Your task to perform on an android device: Open Amazon Image 0: 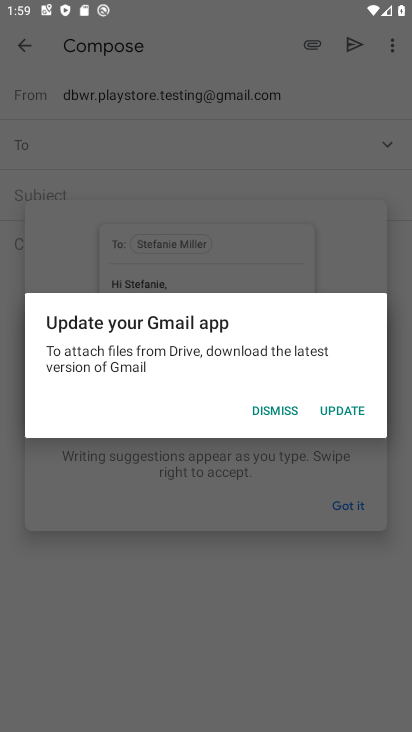
Step 0: press home button
Your task to perform on an android device: Open Amazon Image 1: 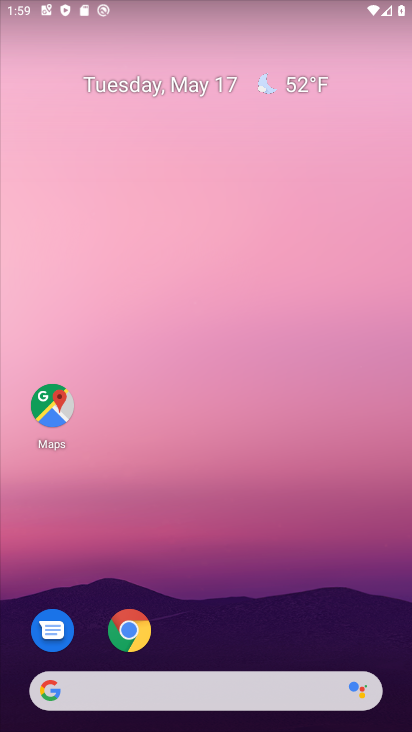
Step 1: click (108, 642)
Your task to perform on an android device: Open Amazon Image 2: 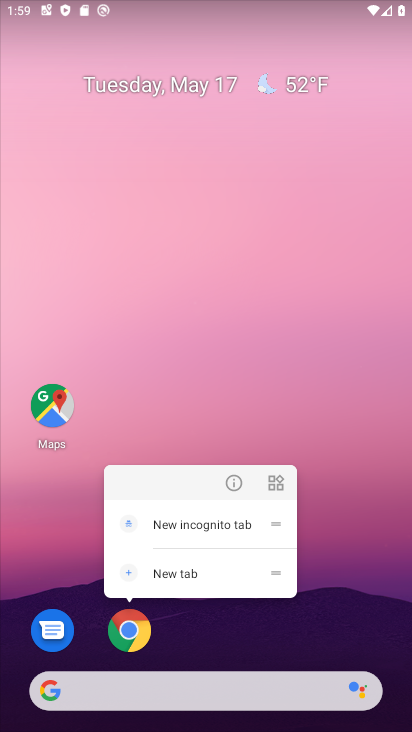
Step 2: click (130, 629)
Your task to perform on an android device: Open Amazon Image 3: 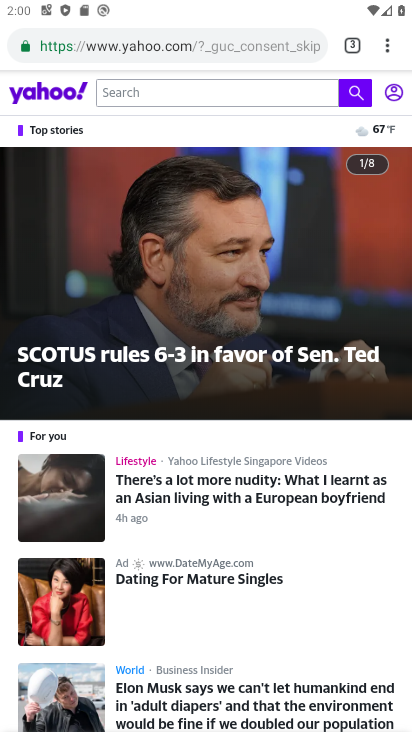
Step 3: click (356, 45)
Your task to perform on an android device: Open Amazon Image 4: 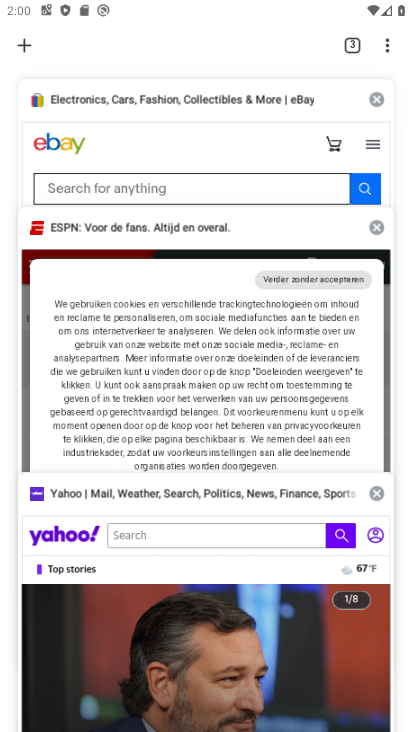
Step 4: click (33, 42)
Your task to perform on an android device: Open Amazon Image 5: 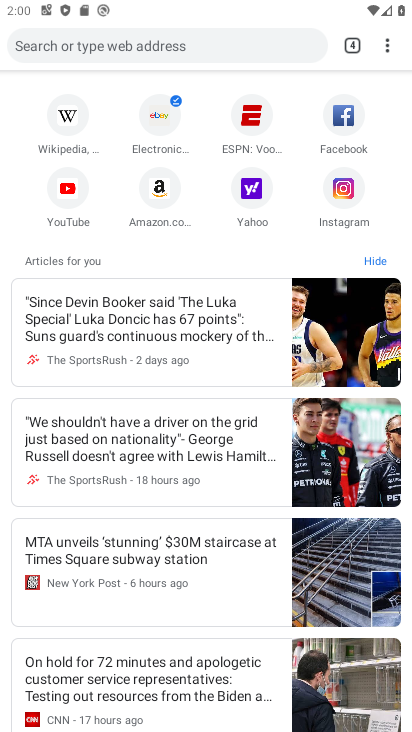
Step 5: click (149, 196)
Your task to perform on an android device: Open Amazon Image 6: 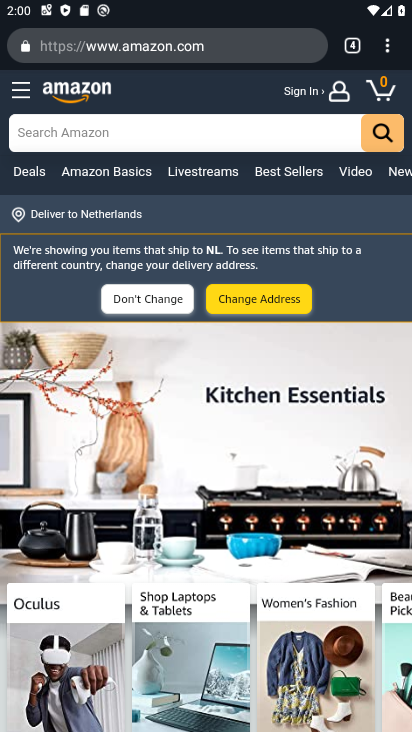
Step 6: task complete